Your task to perform on an android device: Go to Amazon Image 0: 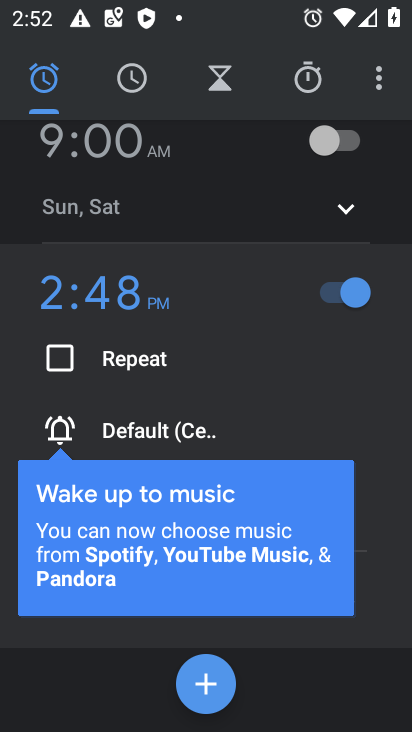
Step 0: press home button
Your task to perform on an android device: Go to Amazon Image 1: 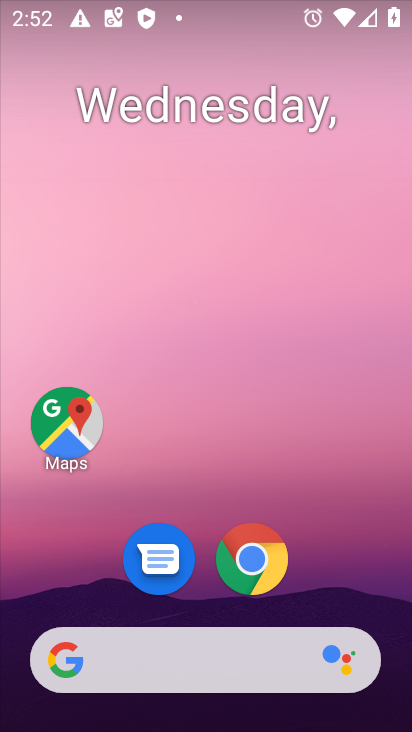
Step 1: click (253, 561)
Your task to perform on an android device: Go to Amazon Image 2: 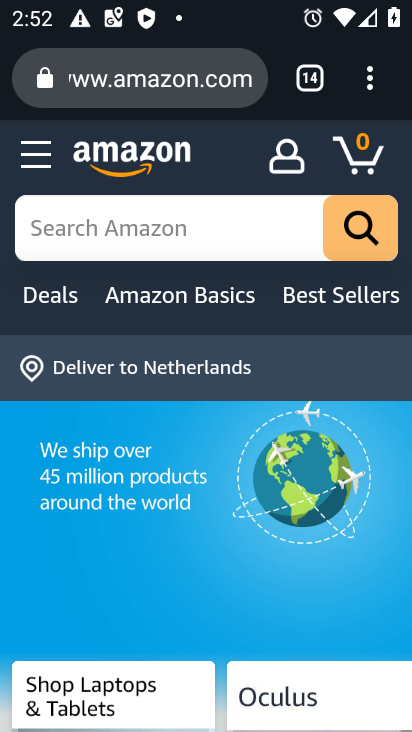
Step 2: task complete